Your task to perform on an android device: turn off translation in the chrome app Image 0: 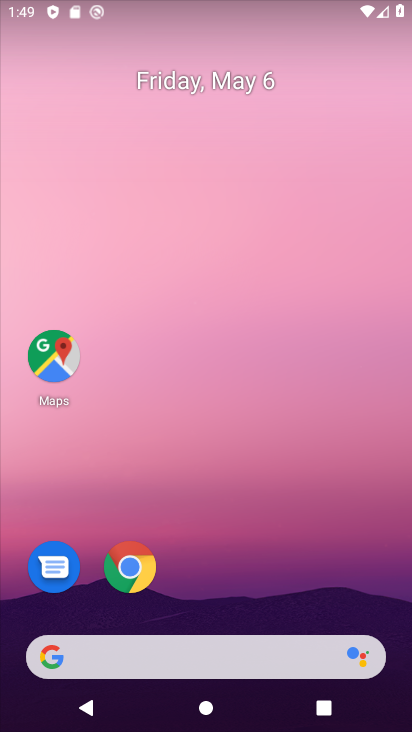
Step 0: click (129, 566)
Your task to perform on an android device: turn off translation in the chrome app Image 1: 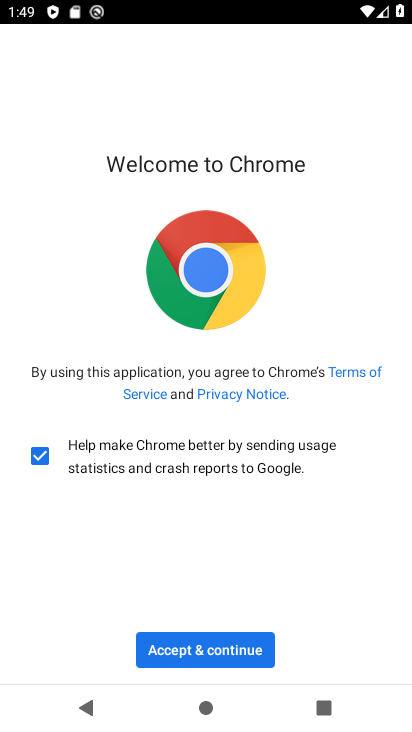
Step 1: click (205, 649)
Your task to perform on an android device: turn off translation in the chrome app Image 2: 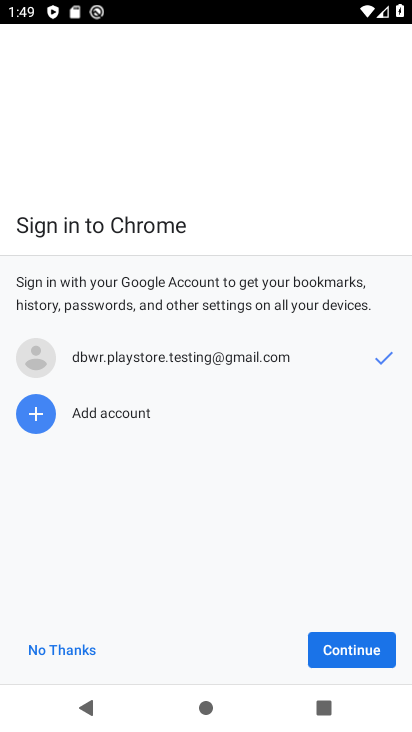
Step 2: click (346, 648)
Your task to perform on an android device: turn off translation in the chrome app Image 3: 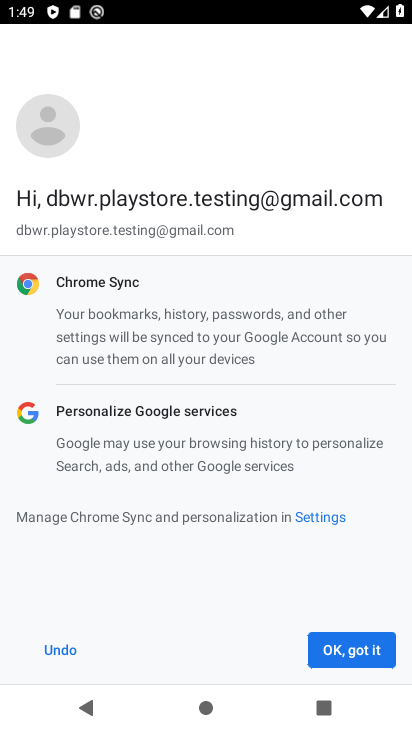
Step 3: click (346, 648)
Your task to perform on an android device: turn off translation in the chrome app Image 4: 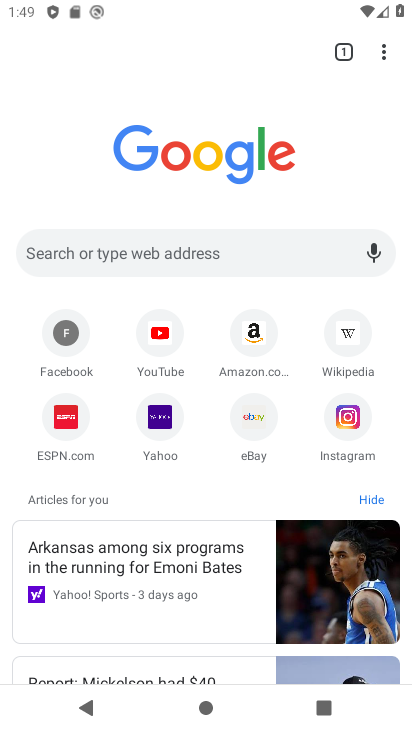
Step 4: click (383, 56)
Your task to perform on an android device: turn off translation in the chrome app Image 5: 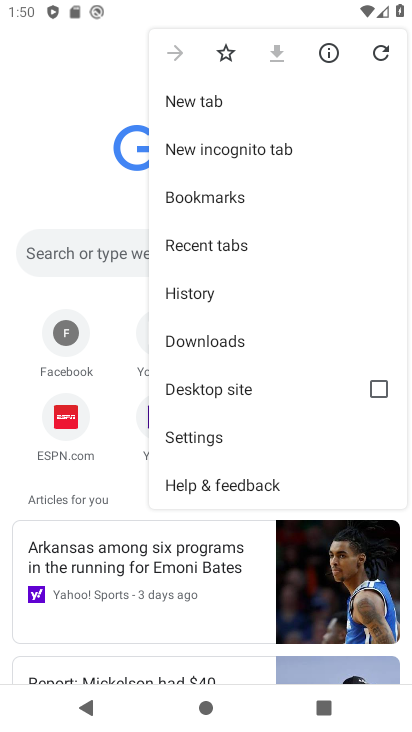
Step 5: click (193, 436)
Your task to perform on an android device: turn off translation in the chrome app Image 6: 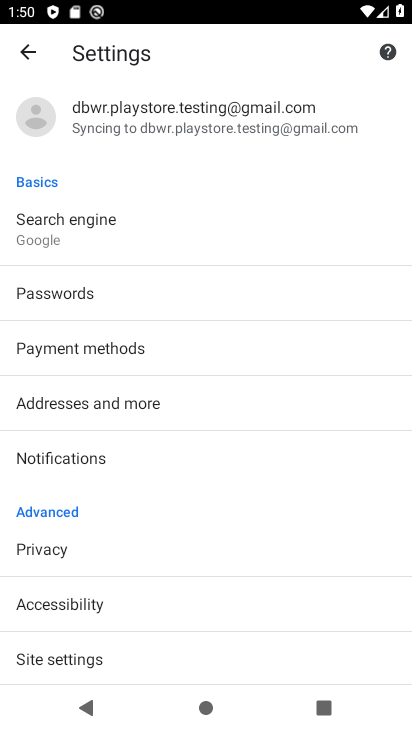
Step 6: drag from (188, 639) to (225, 295)
Your task to perform on an android device: turn off translation in the chrome app Image 7: 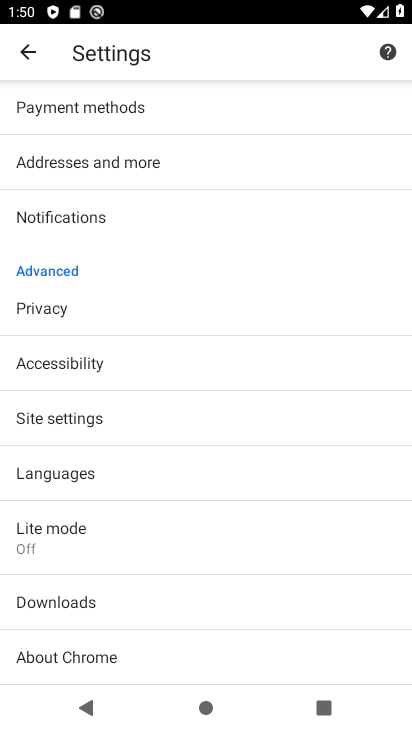
Step 7: click (61, 470)
Your task to perform on an android device: turn off translation in the chrome app Image 8: 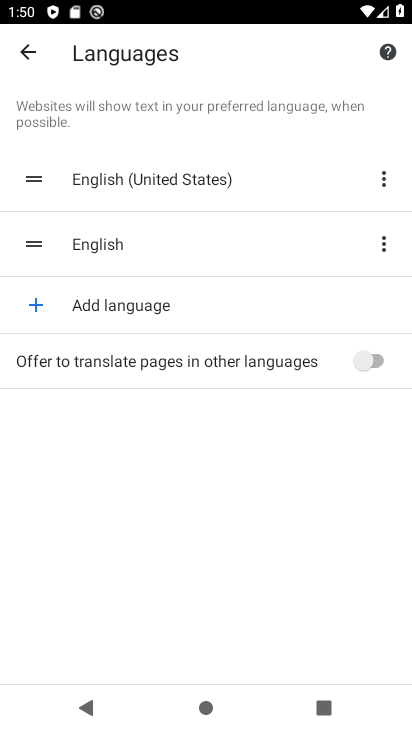
Step 8: task complete